Your task to perform on an android device: turn off translation in the chrome app Image 0: 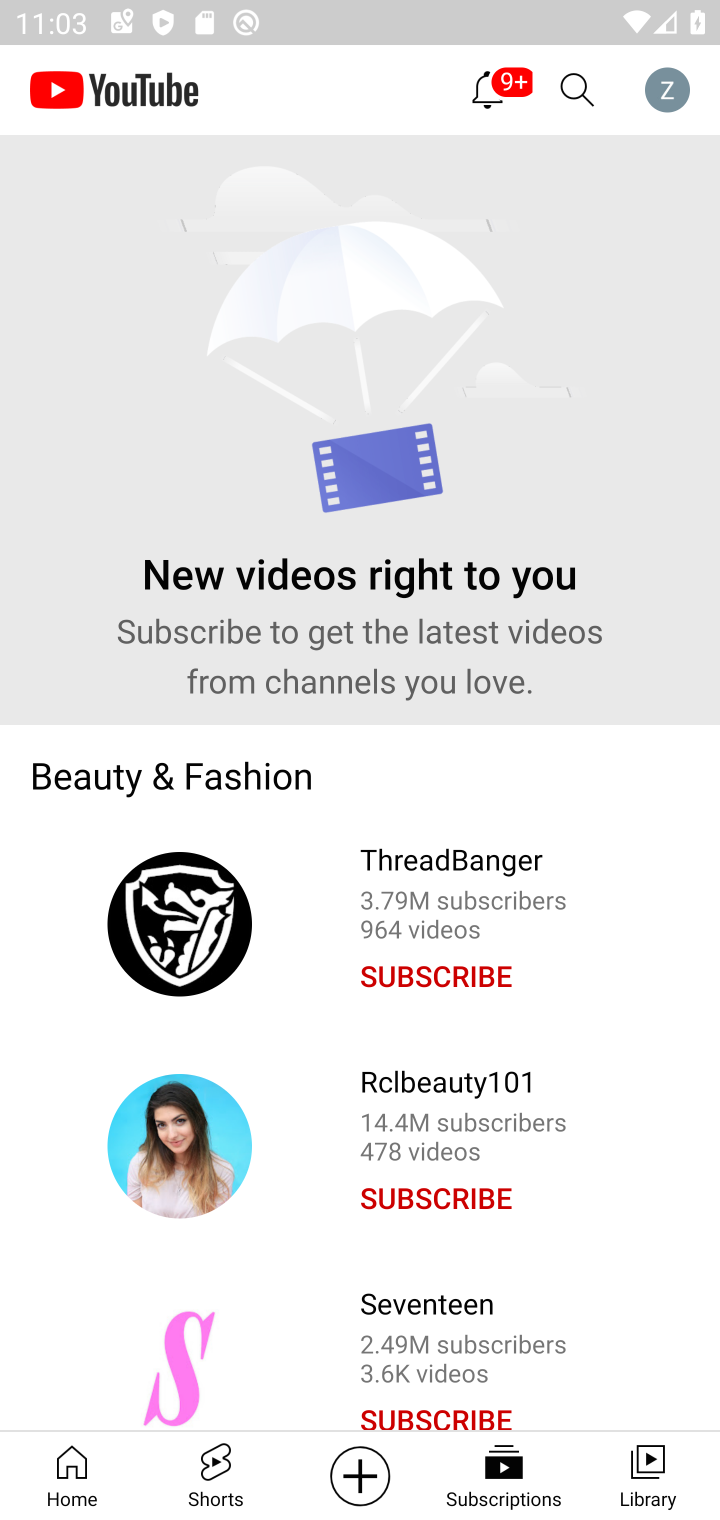
Step 0: press home button
Your task to perform on an android device: turn off translation in the chrome app Image 1: 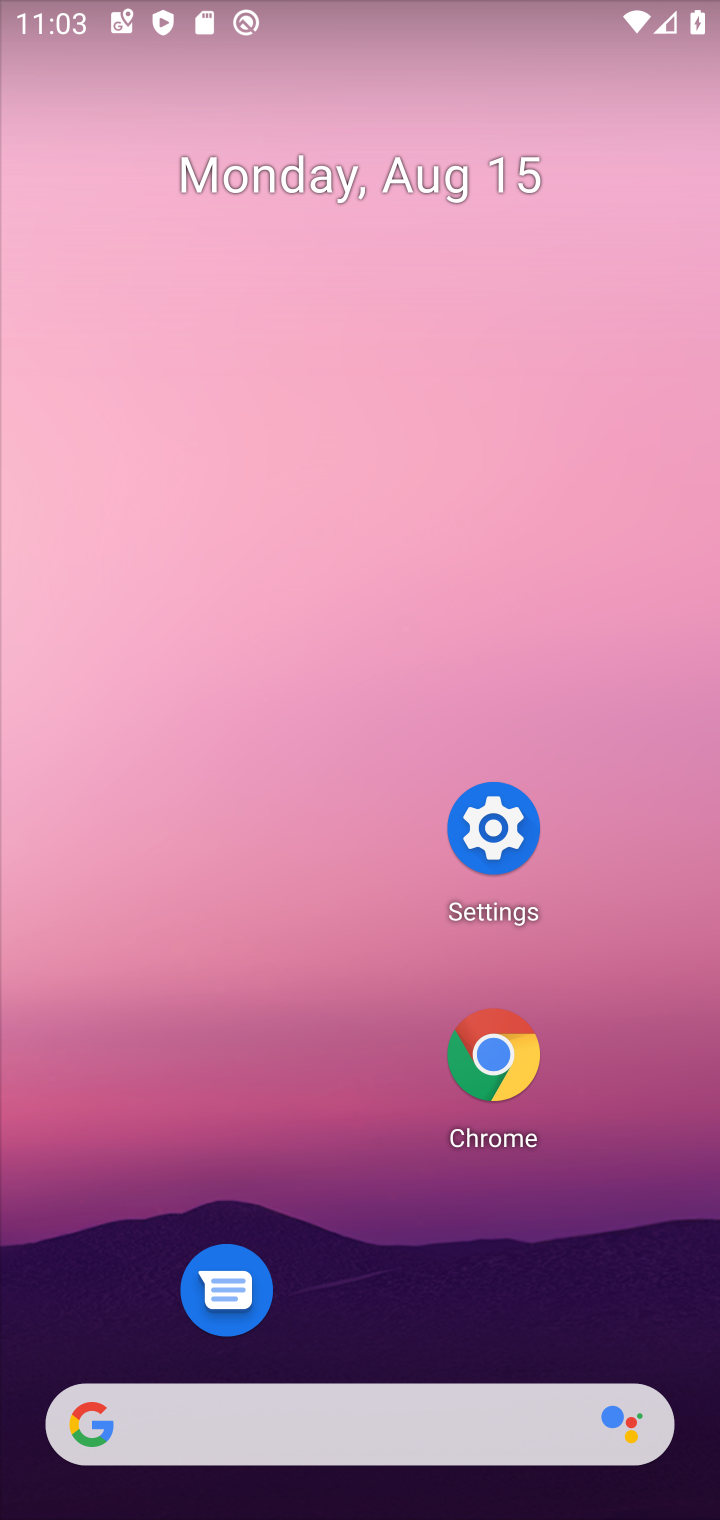
Step 1: drag from (497, 1056) to (545, 1206)
Your task to perform on an android device: turn off translation in the chrome app Image 2: 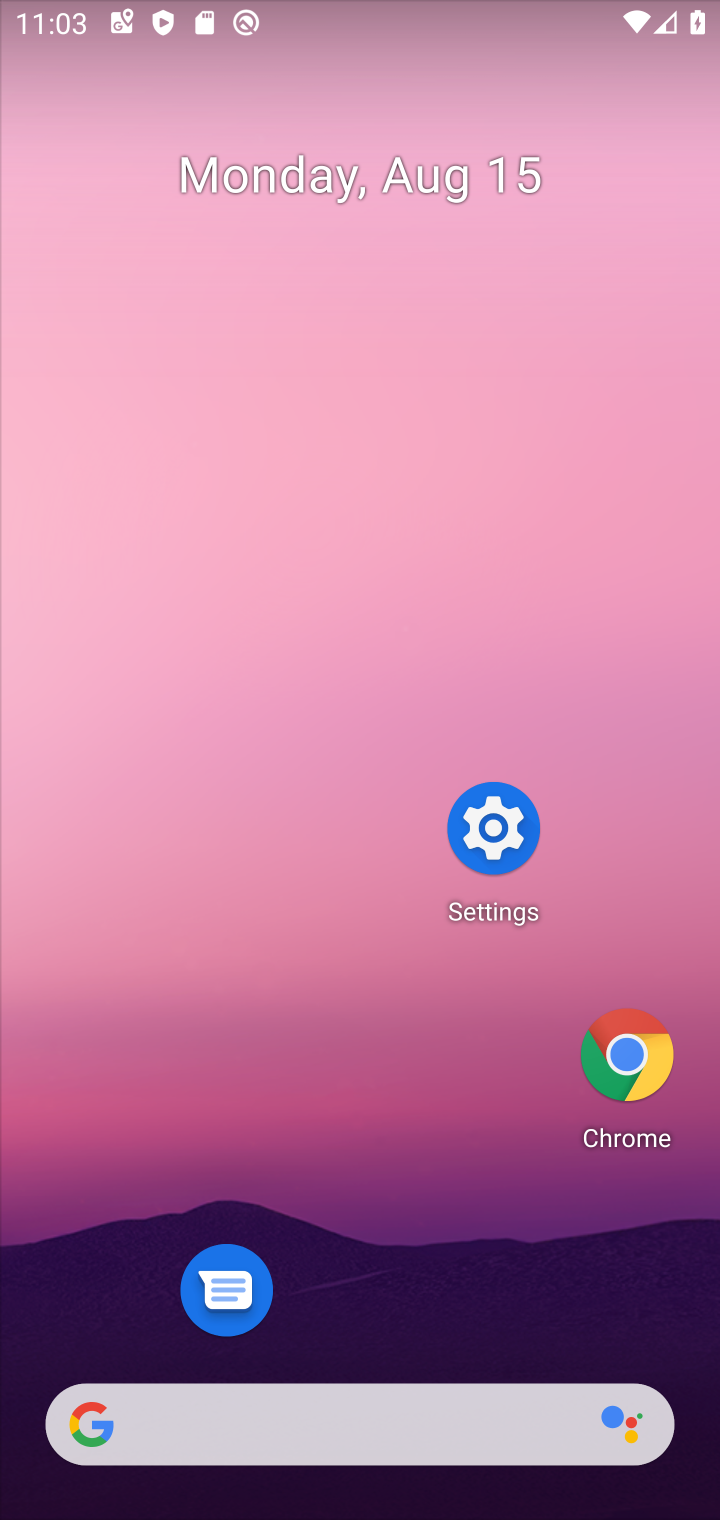
Step 2: click (627, 1051)
Your task to perform on an android device: turn off translation in the chrome app Image 3: 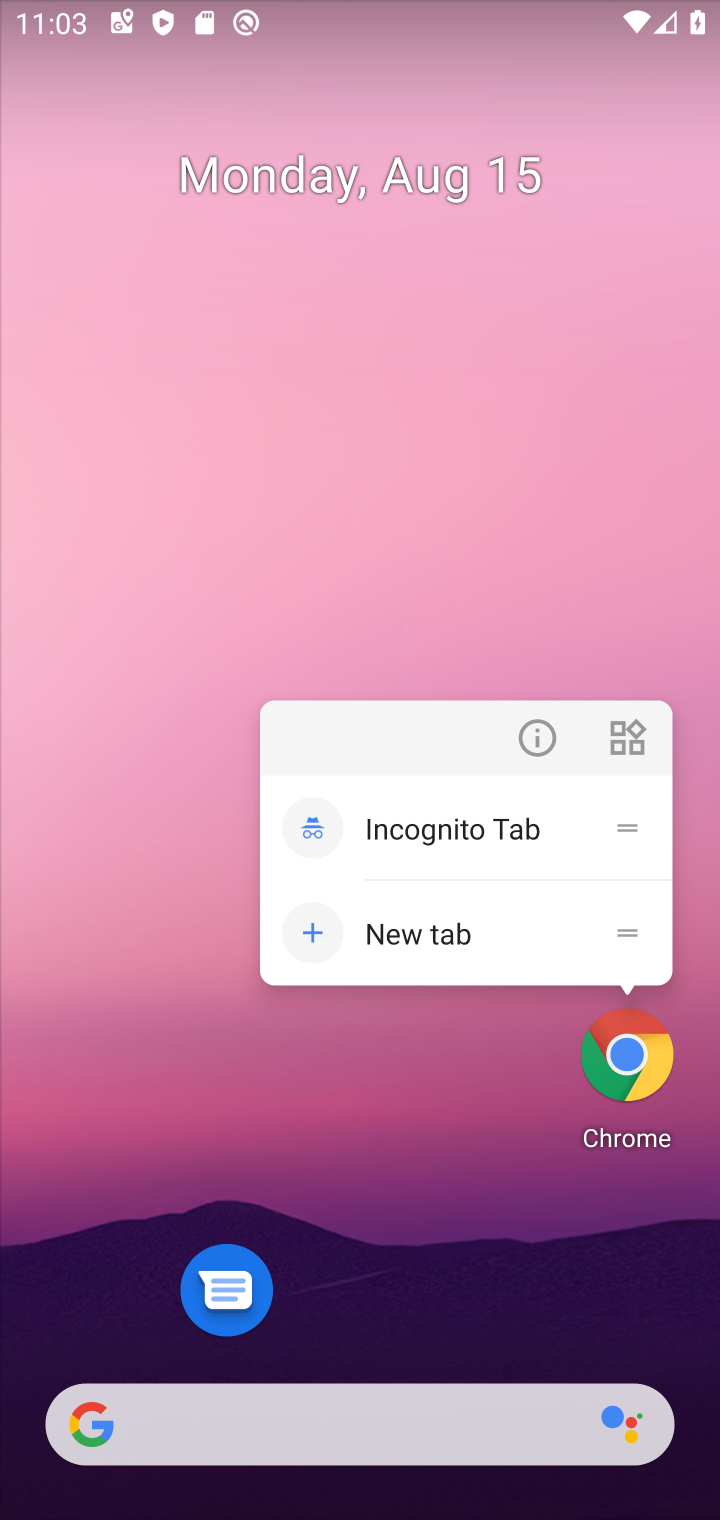
Step 3: click (627, 1061)
Your task to perform on an android device: turn off translation in the chrome app Image 4: 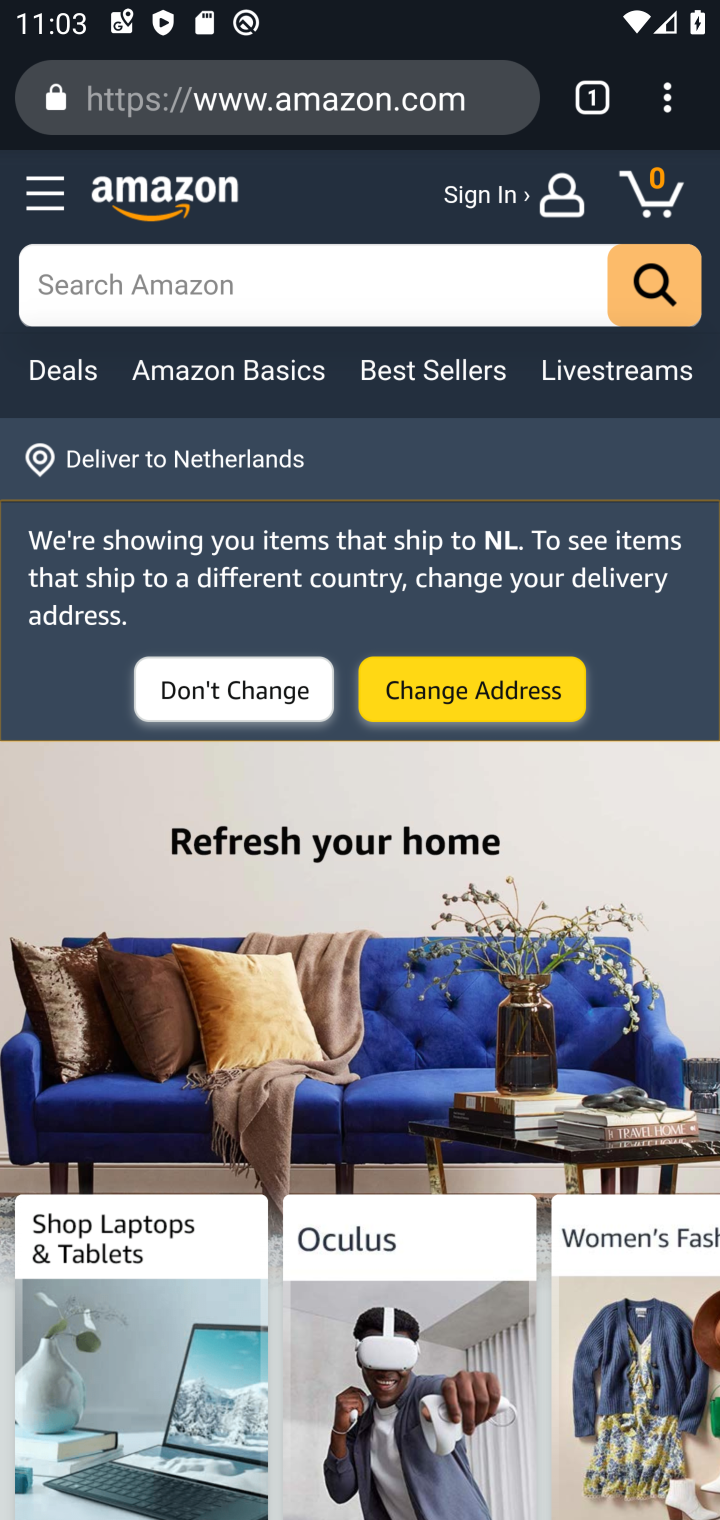
Step 4: drag from (672, 95) to (381, 1179)
Your task to perform on an android device: turn off translation in the chrome app Image 5: 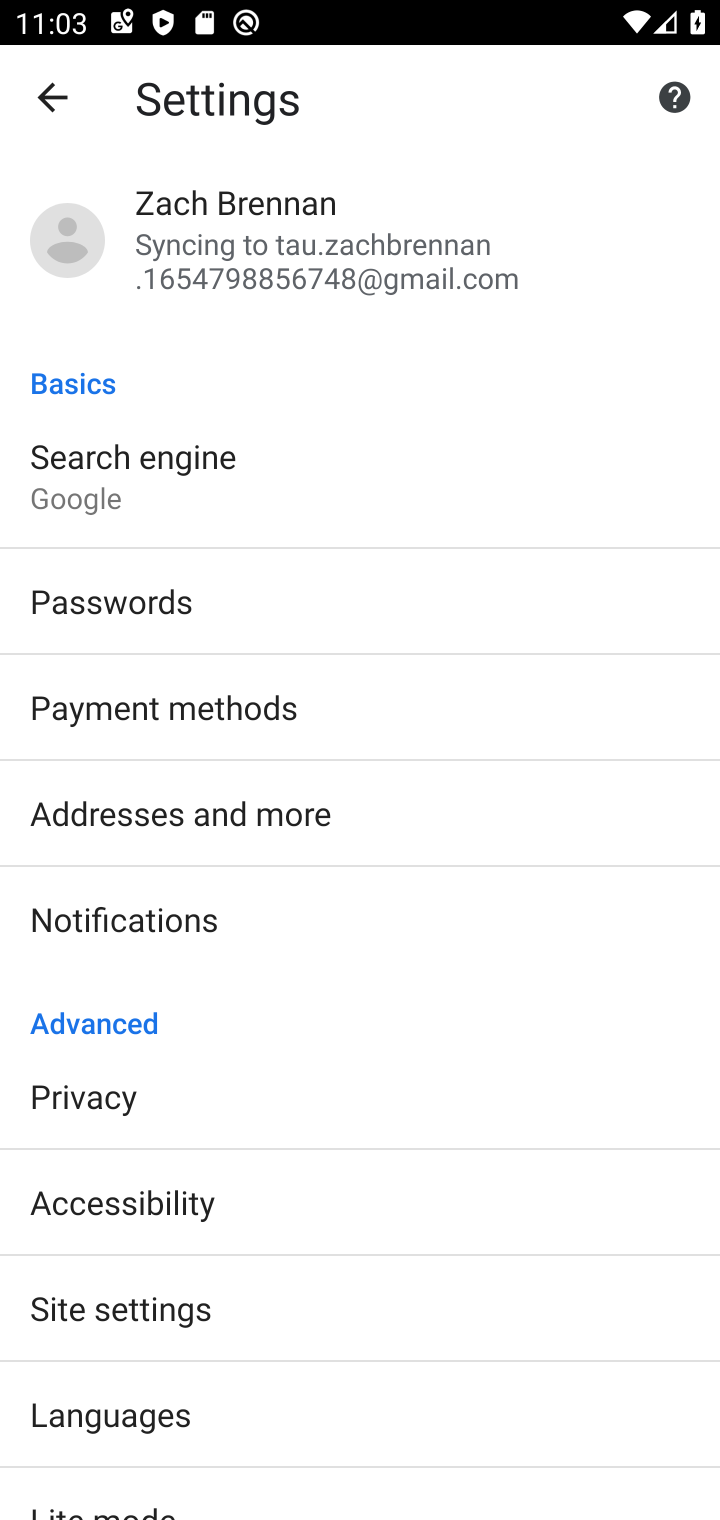
Step 5: drag from (397, 1289) to (586, 299)
Your task to perform on an android device: turn off translation in the chrome app Image 6: 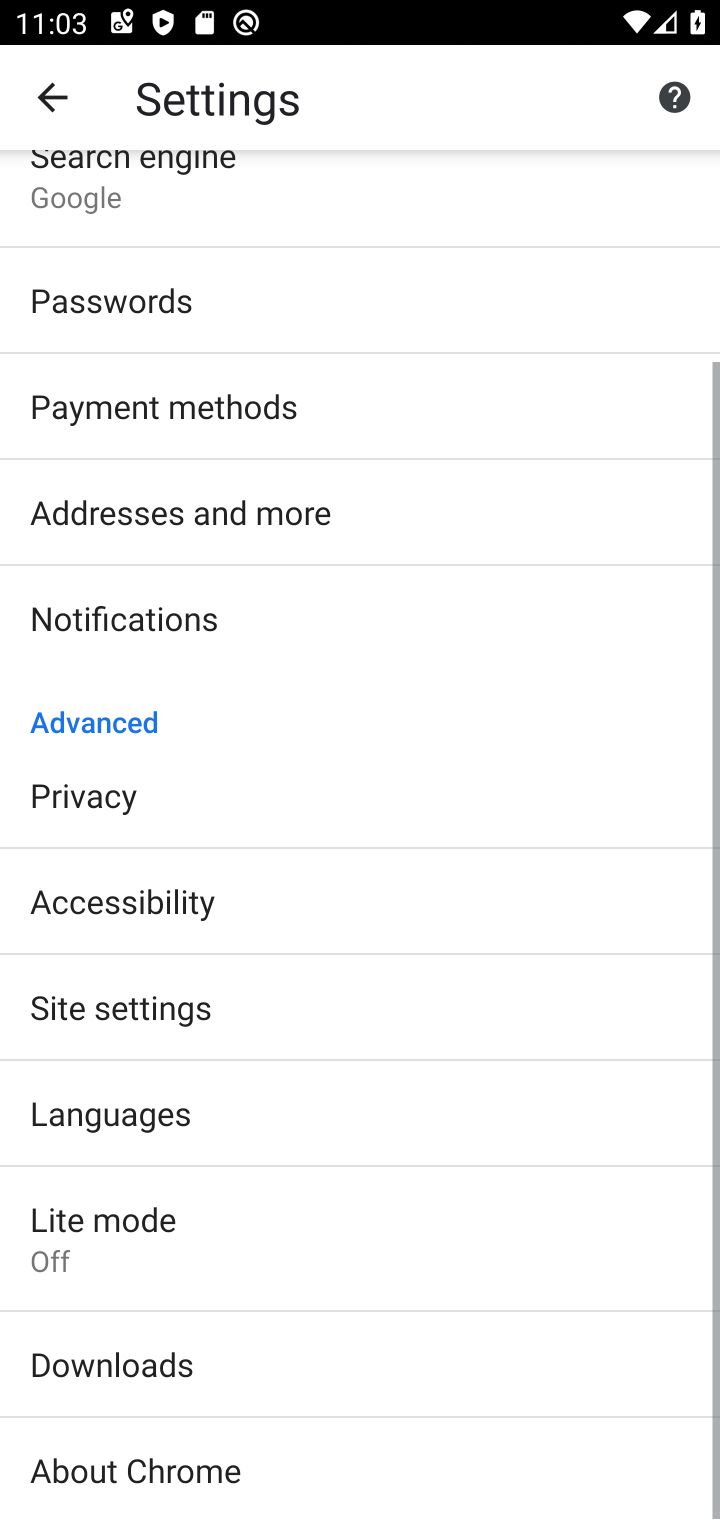
Step 6: click (167, 1115)
Your task to perform on an android device: turn off translation in the chrome app Image 7: 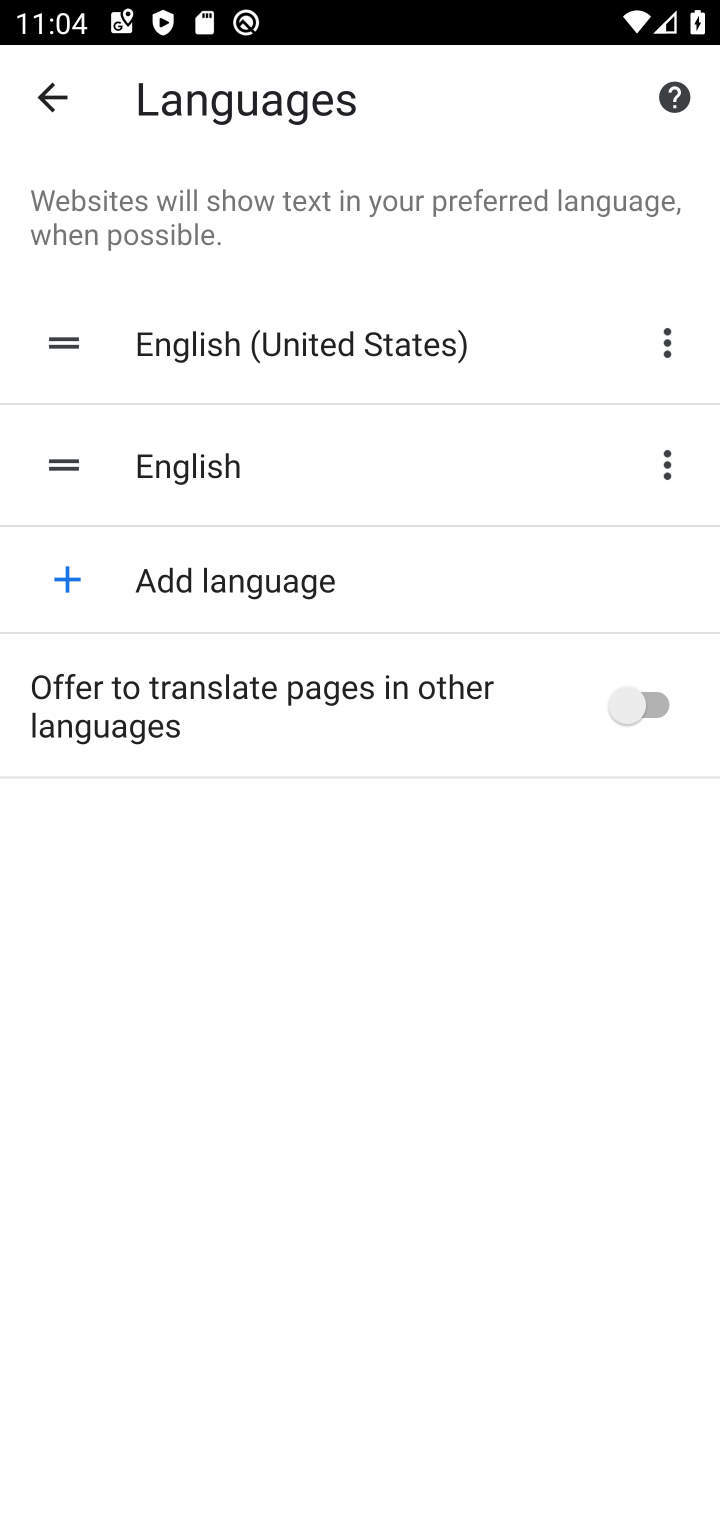
Step 7: task complete